Your task to perform on an android device: turn off notifications settings in the gmail app Image 0: 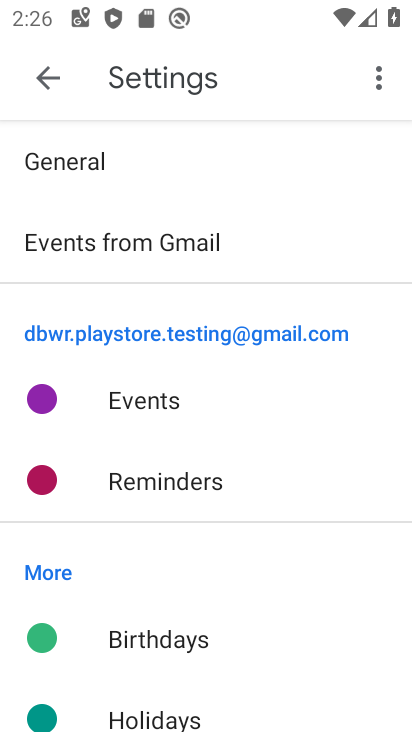
Step 0: press home button
Your task to perform on an android device: turn off notifications settings in the gmail app Image 1: 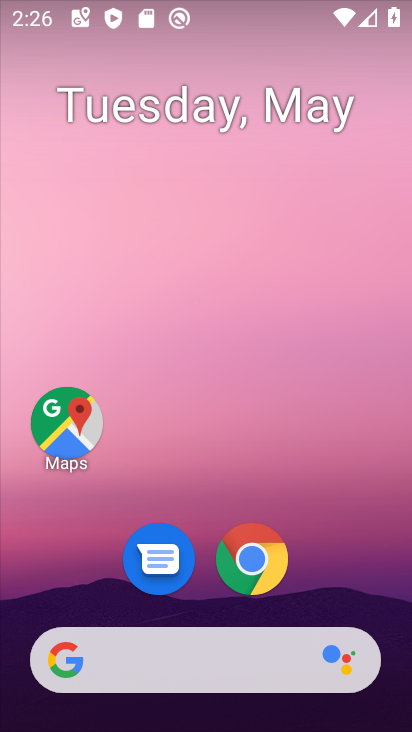
Step 1: drag from (228, 660) to (322, 219)
Your task to perform on an android device: turn off notifications settings in the gmail app Image 2: 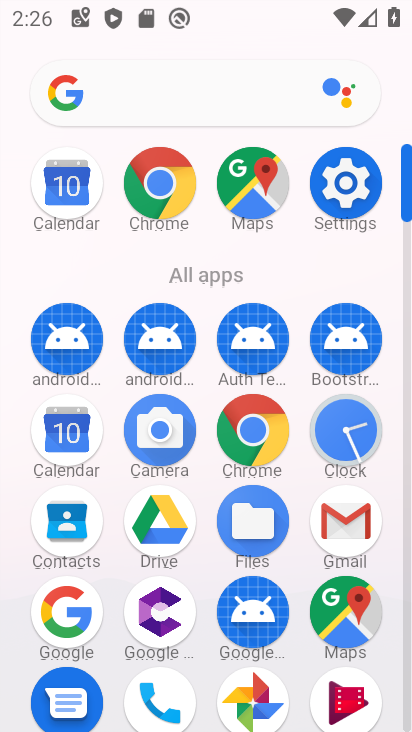
Step 2: click (338, 530)
Your task to perform on an android device: turn off notifications settings in the gmail app Image 3: 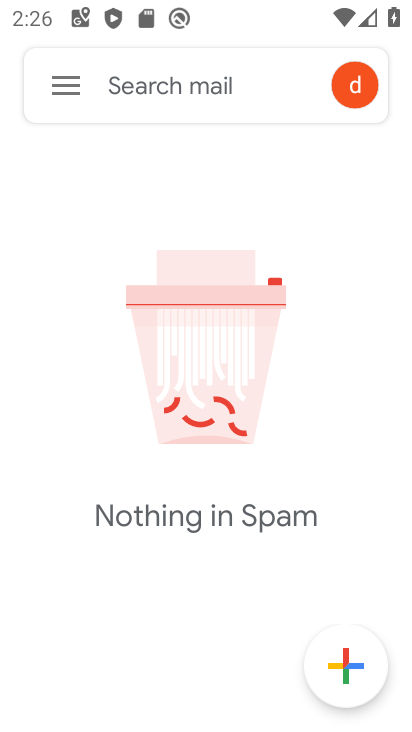
Step 3: click (68, 100)
Your task to perform on an android device: turn off notifications settings in the gmail app Image 4: 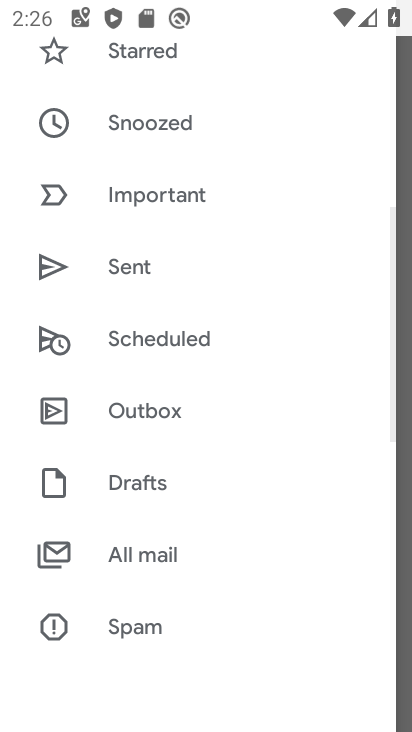
Step 4: drag from (193, 653) to (387, 103)
Your task to perform on an android device: turn off notifications settings in the gmail app Image 5: 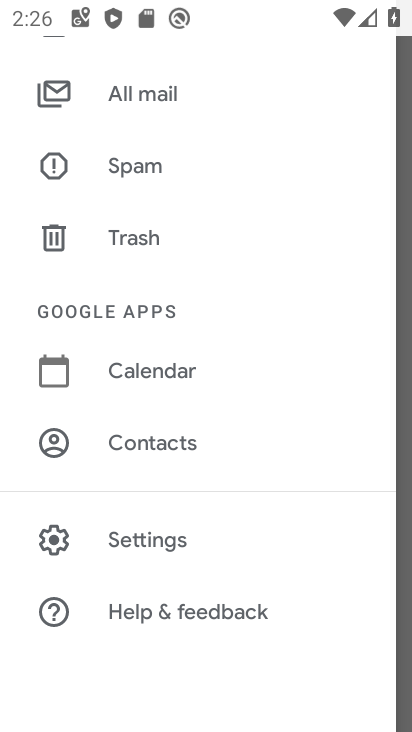
Step 5: click (160, 546)
Your task to perform on an android device: turn off notifications settings in the gmail app Image 6: 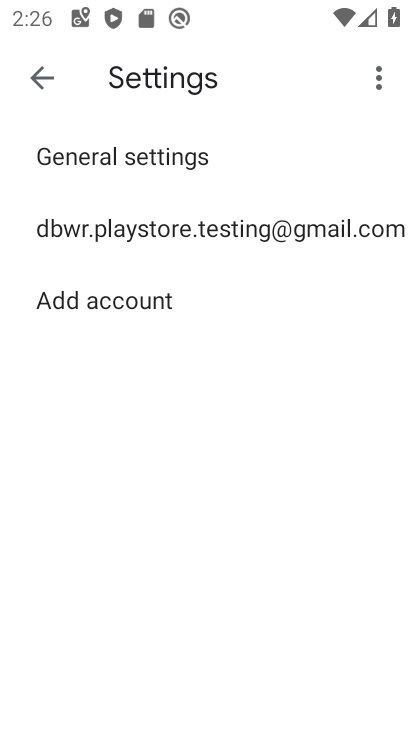
Step 6: click (272, 229)
Your task to perform on an android device: turn off notifications settings in the gmail app Image 7: 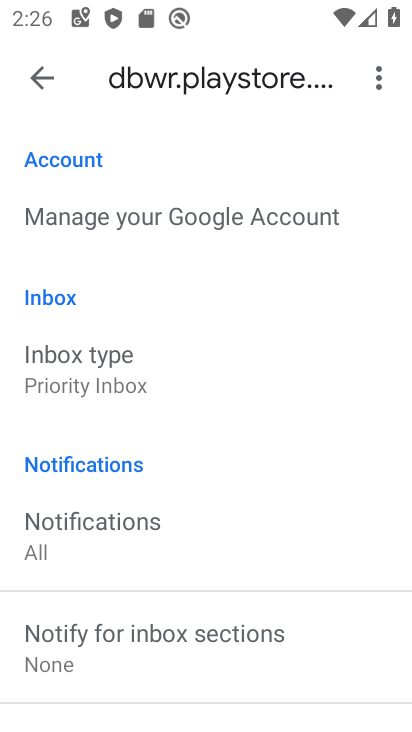
Step 7: click (72, 523)
Your task to perform on an android device: turn off notifications settings in the gmail app Image 8: 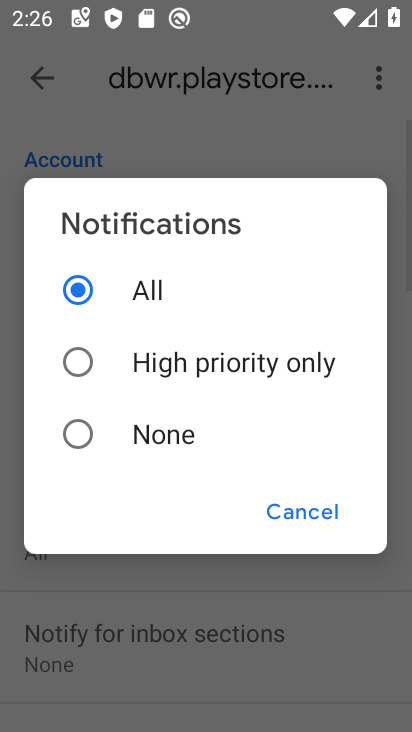
Step 8: click (79, 438)
Your task to perform on an android device: turn off notifications settings in the gmail app Image 9: 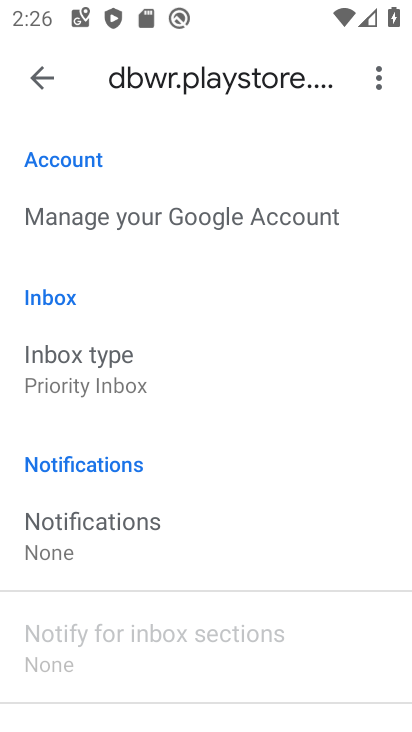
Step 9: task complete